Your task to perform on an android device: show emergency info Image 0: 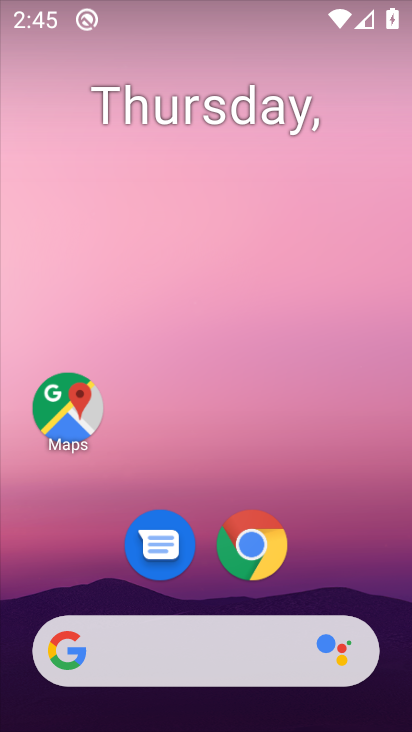
Step 0: drag from (224, 622) to (266, 146)
Your task to perform on an android device: show emergency info Image 1: 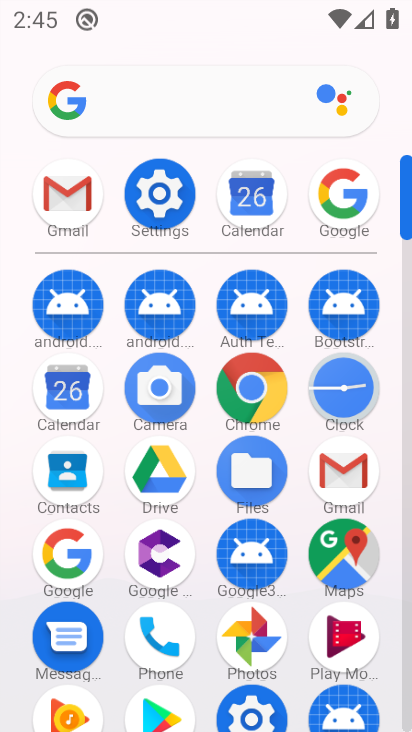
Step 1: click (159, 211)
Your task to perform on an android device: show emergency info Image 2: 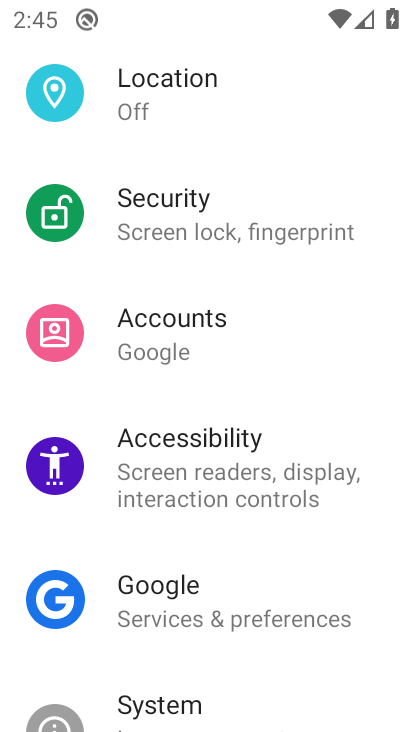
Step 2: drag from (178, 712) to (293, 108)
Your task to perform on an android device: show emergency info Image 3: 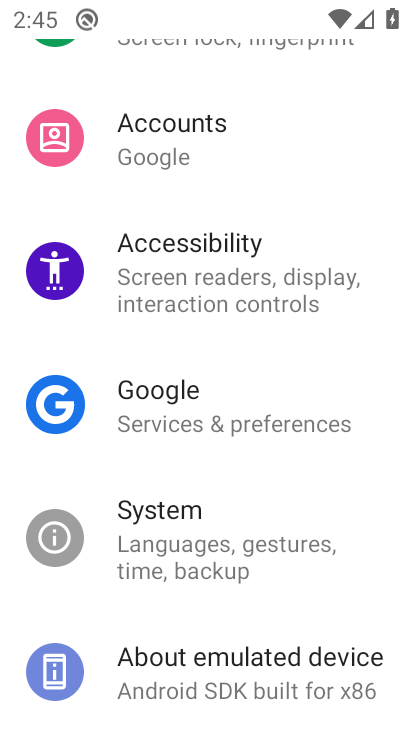
Step 3: click (237, 652)
Your task to perform on an android device: show emergency info Image 4: 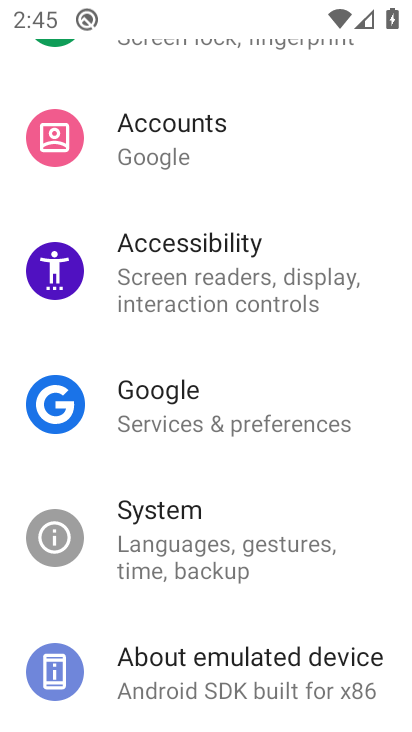
Step 4: click (237, 652)
Your task to perform on an android device: show emergency info Image 5: 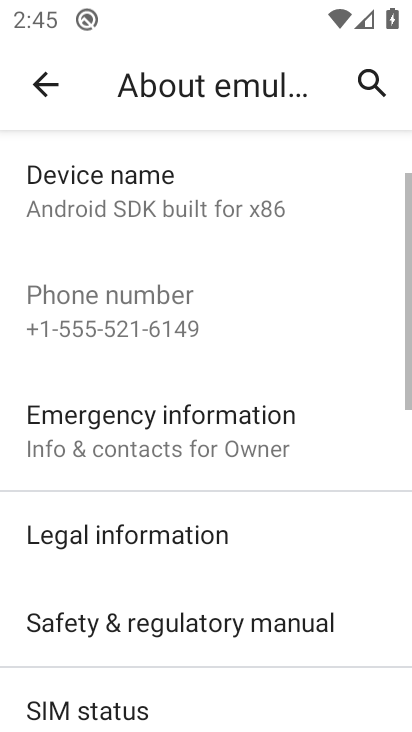
Step 5: click (261, 430)
Your task to perform on an android device: show emergency info Image 6: 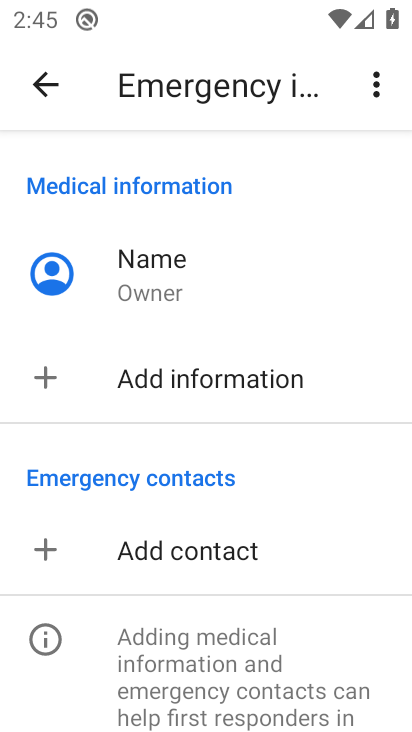
Step 6: task complete